Your task to perform on an android device: turn on bluetooth scan Image 0: 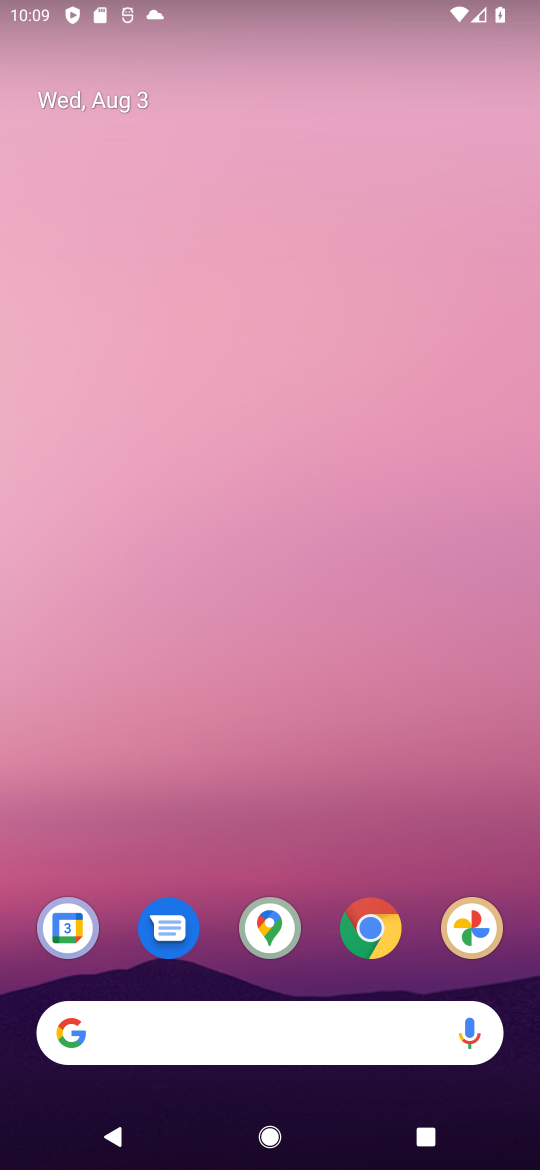
Step 0: drag from (320, 854) to (268, 49)
Your task to perform on an android device: turn on bluetooth scan Image 1: 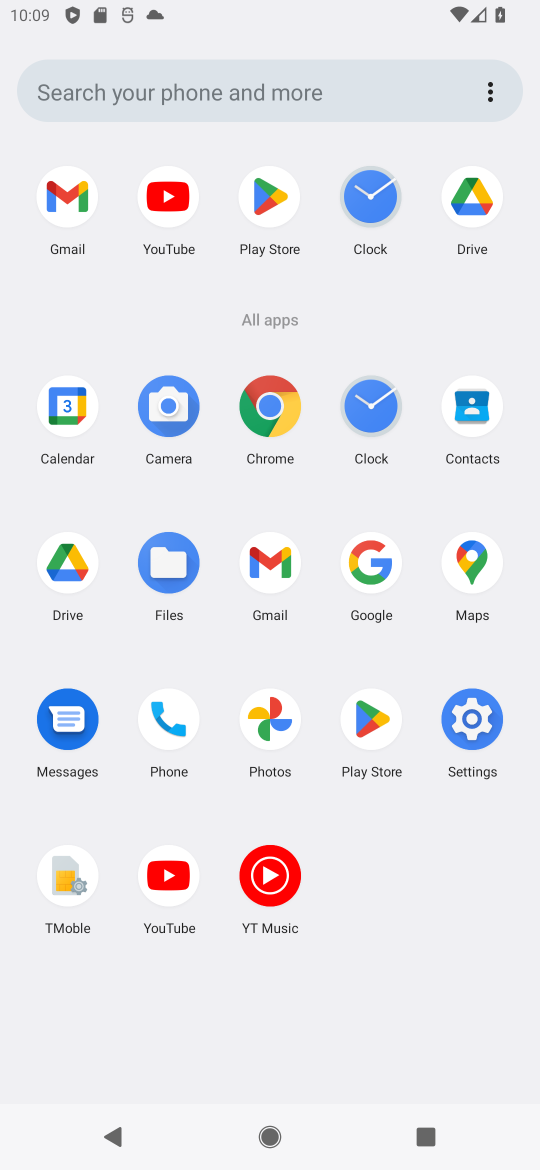
Step 1: click (472, 722)
Your task to perform on an android device: turn on bluetooth scan Image 2: 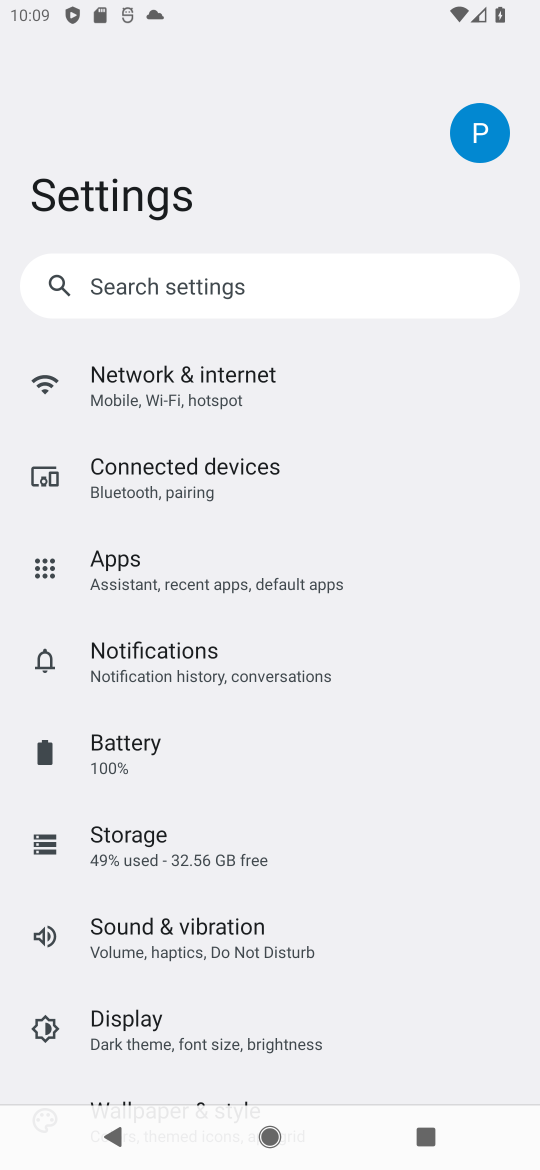
Step 2: drag from (316, 1018) to (277, 414)
Your task to perform on an android device: turn on bluetooth scan Image 3: 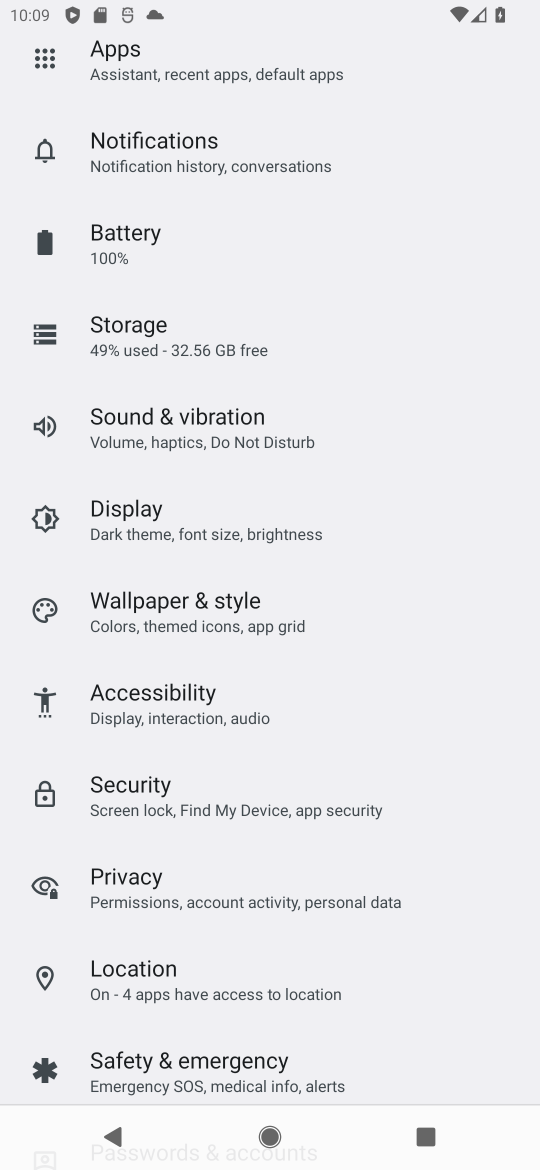
Step 3: drag from (312, 1045) to (287, 506)
Your task to perform on an android device: turn on bluetooth scan Image 4: 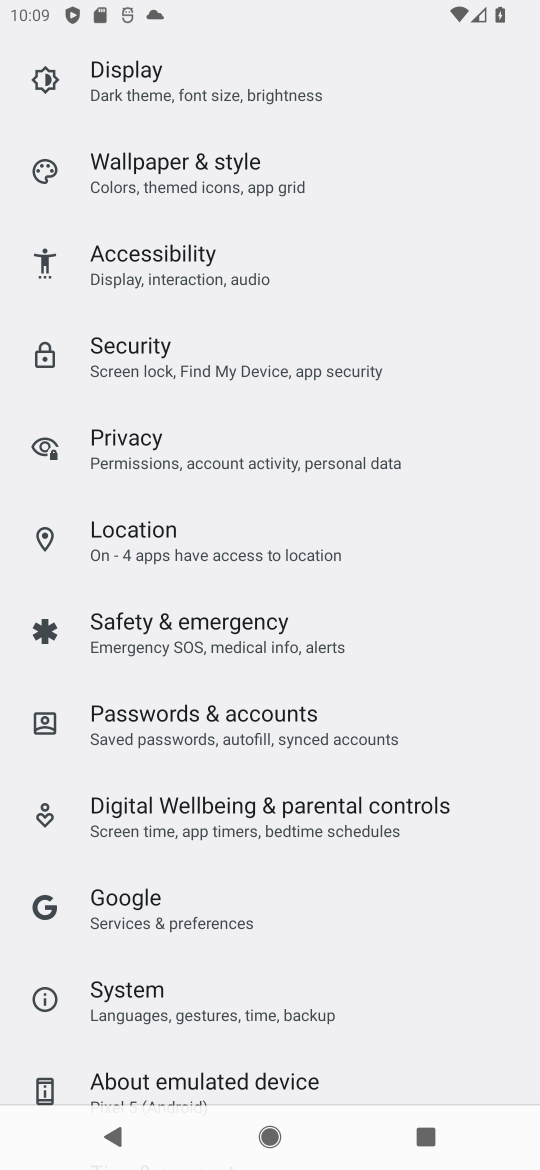
Step 4: click (267, 560)
Your task to perform on an android device: turn on bluetooth scan Image 5: 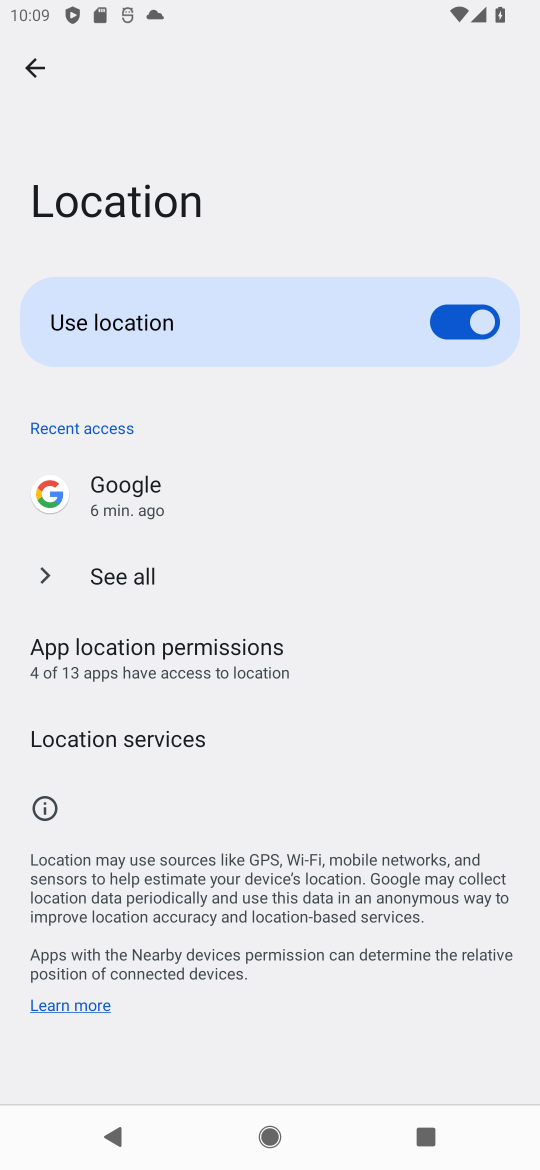
Step 5: click (257, 738)
Your task to perform on an android device: turn on bluetooth scan Image 6: 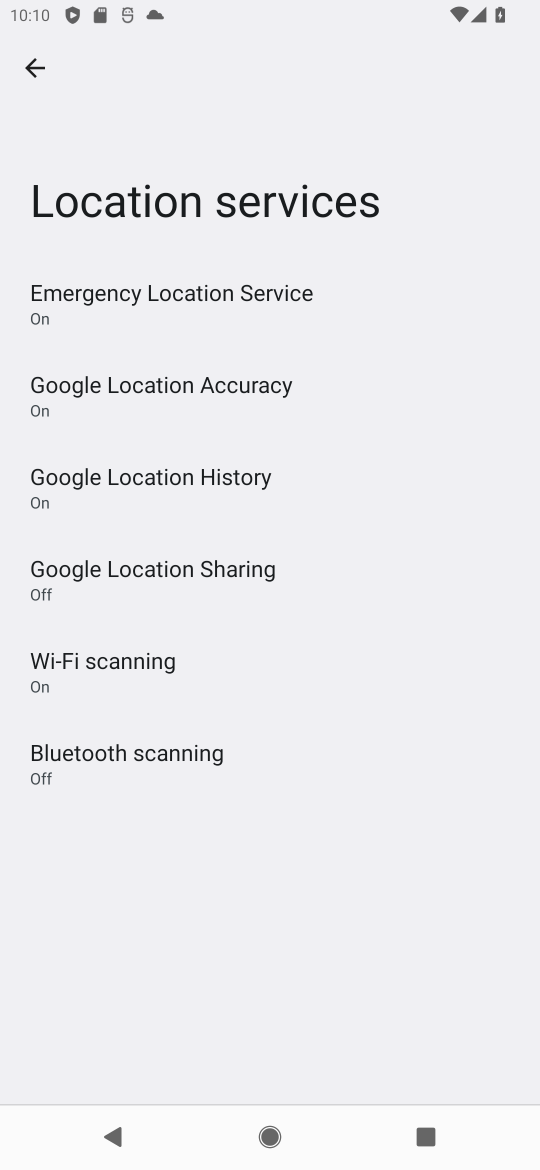
Step 6: click (227, 753)
Your task to perform on an android device: turn on bluetooth scan Image 7: 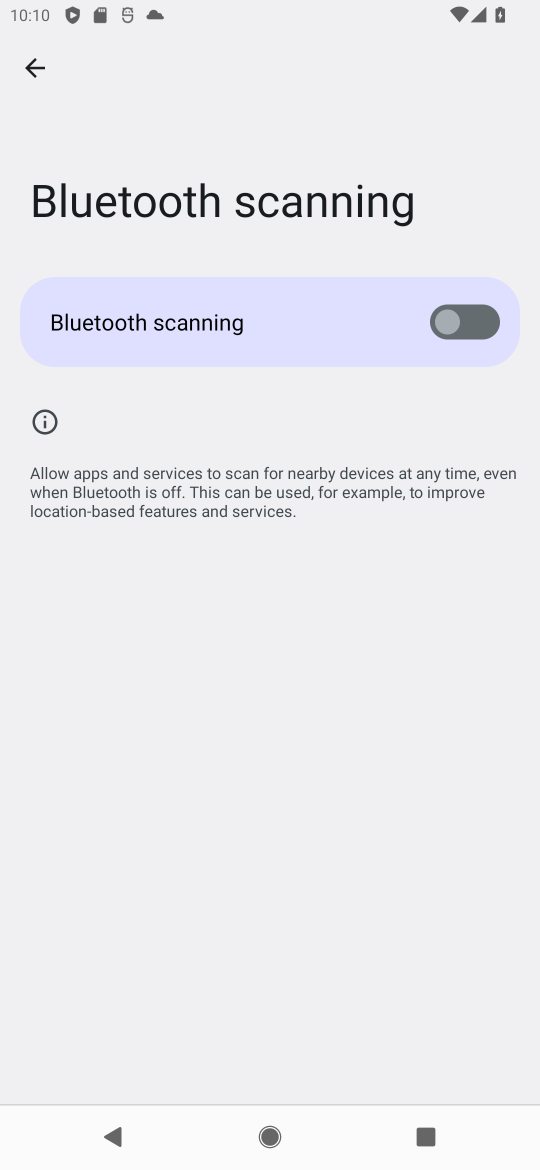
Step 7: click (457, 347)
Your task to perform on an android device: turn on bluetooth scan Image 8: 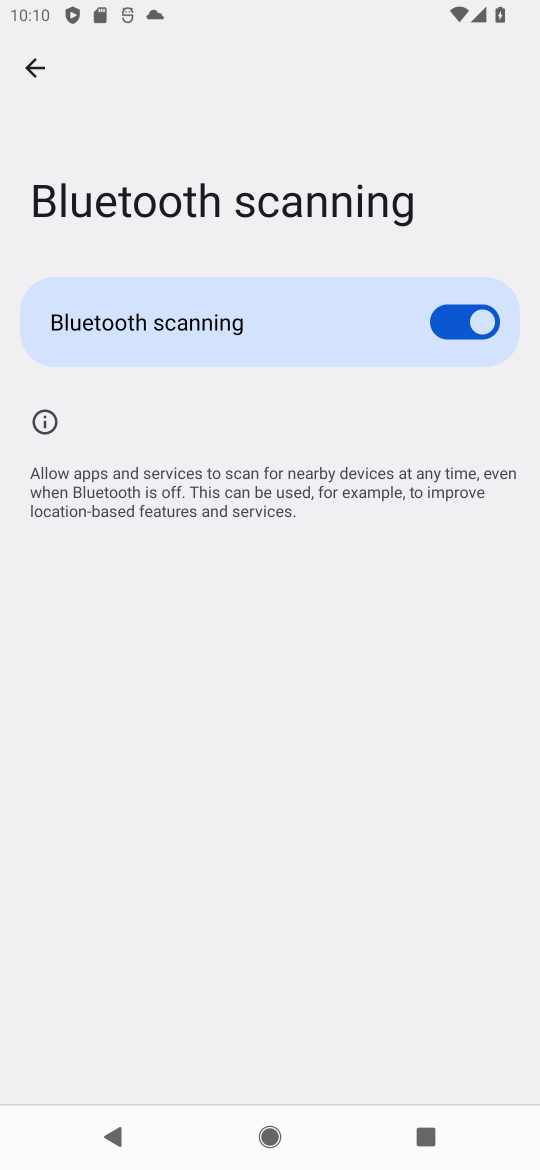
Step 8: task complete